Your task to perform on an android device: add a label to a message in the gmail app Image 0: 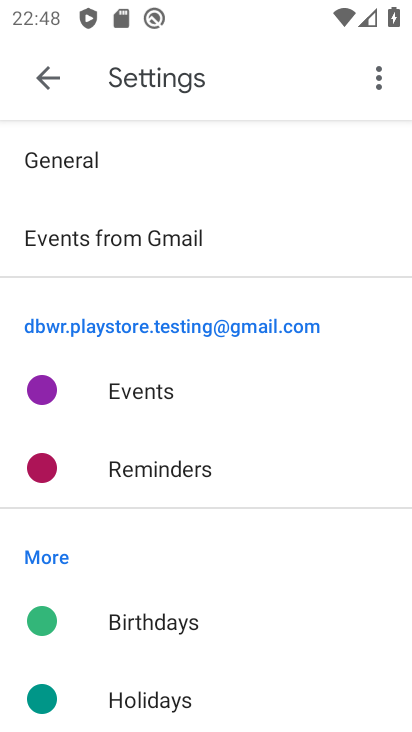
Step 0: press home button
Your task to perform on an android device: add a label to a message in the gmail app Image 1: 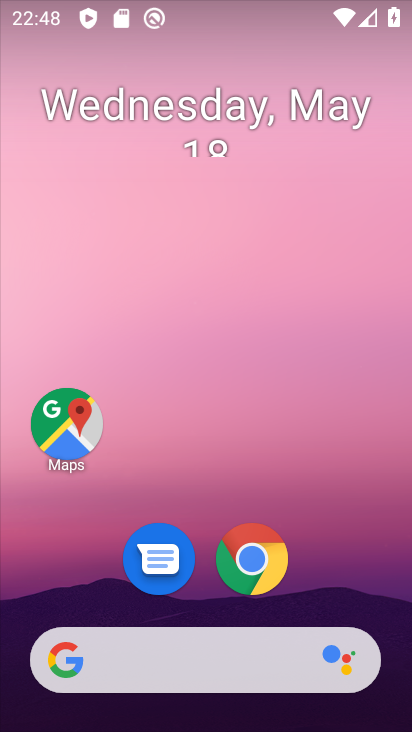
Step 1: drag from (288, 565) to (289, 207)
Your task to perform on an android device: add a label to a message in the gmail app Image 2: 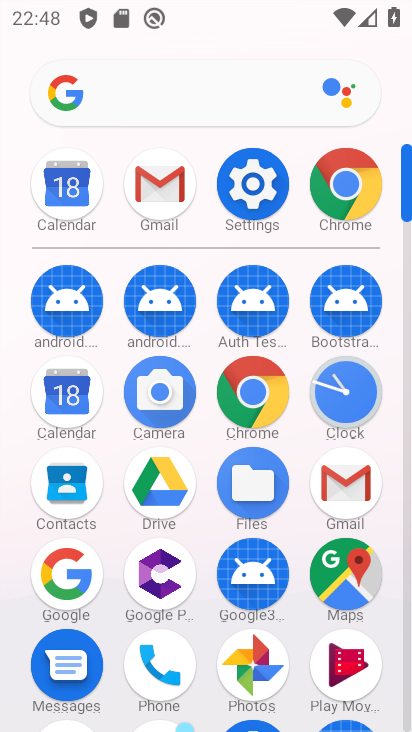
Step 2: click (170, 206)
Your task to perform on an android device: add a label to a message in the gmail app Image 3: 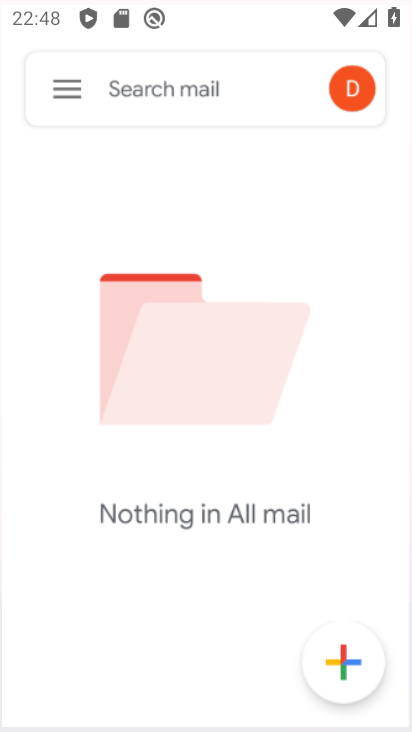
Step 3: click (158, 188)
Your task to perform on an android device: add a label to a message in the gmail app Image 4: 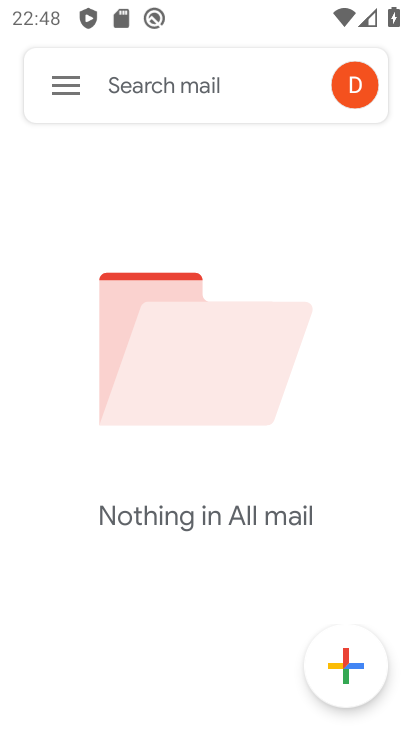
Step 4: click (74, 95)
Your task to perform on an android device: add a label to a message in the gmail app Image 5: 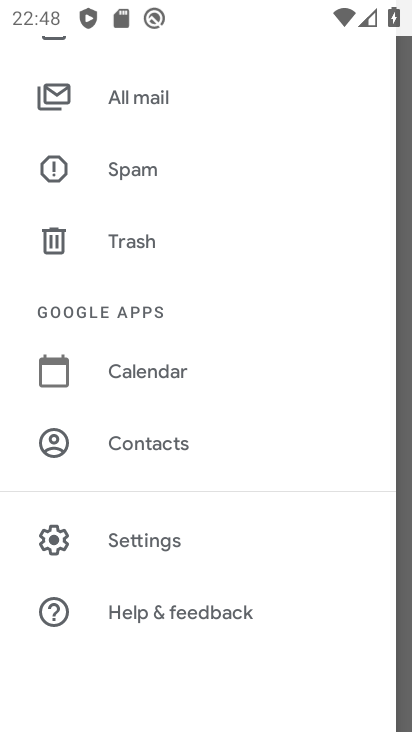
Step 5: task complete